Your task to perform on an android device: check data usage Image 0: 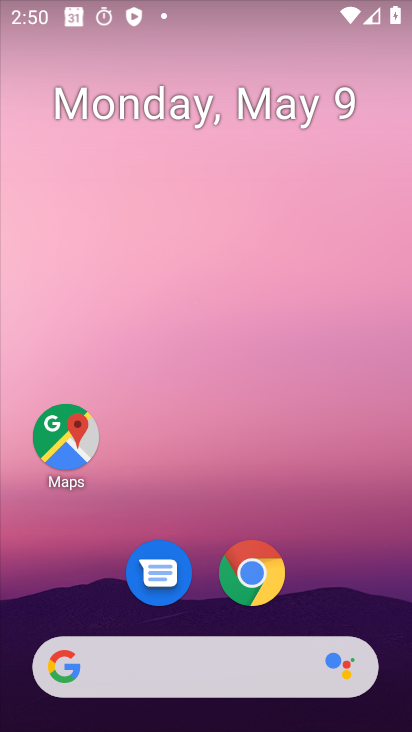
Step 0: drag from (365, 646) to (233, 83)
Your task to perform on an android device: check data usage Image 1: 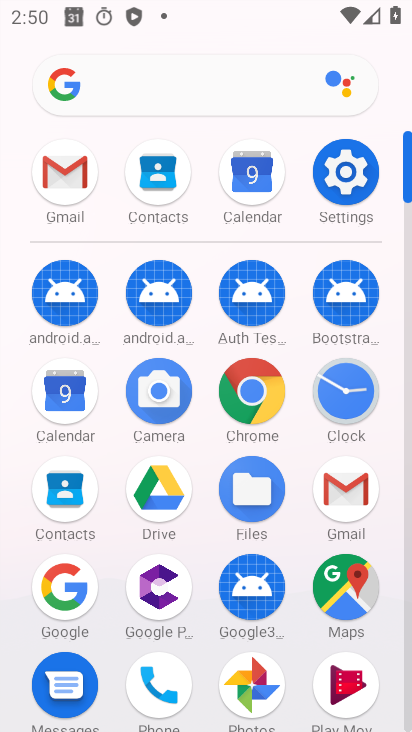
Step 1: click (338, 173)
Your task to perform on an android device: check data usage Image 2: 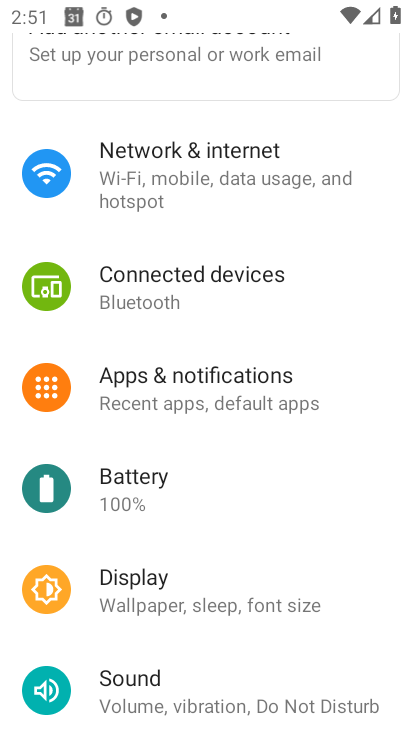
Step 2: click (208, 169)
Your task to perform on an android device: check data usage Image 3: 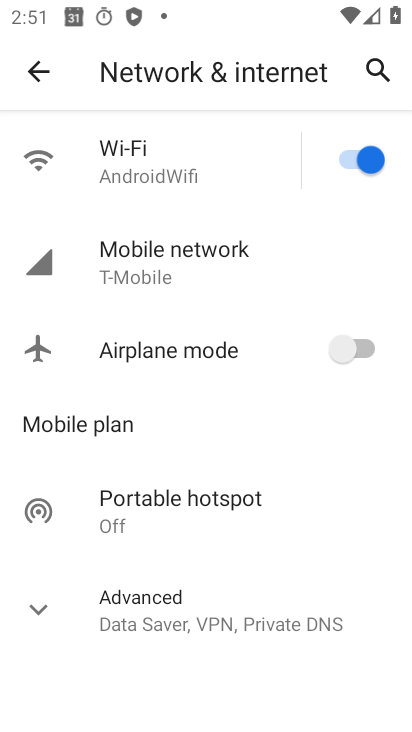
Step 3: task complete